Your task to perform on an android device: Go to location settings Image 0: 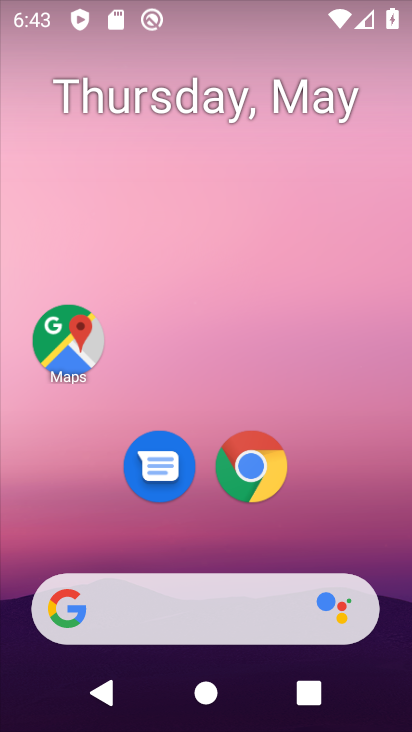
Step 0: drag from (334, 517) to (222, 33)
Your task to perform on an android device: Go to location settings Image 1: 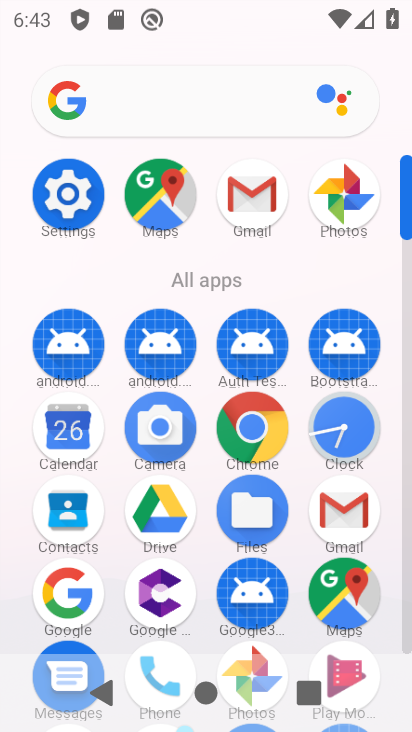
Step 1: click (69, 199)
Your task to perform on an android device: Go to location settings Image 2: 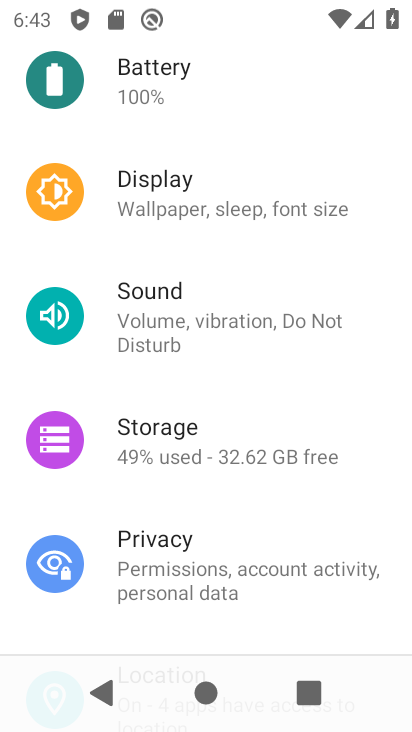
Step 2: drag from (263, 539) to (193, 199)
Your task to perform on an android device: Go to location settings Image 3: 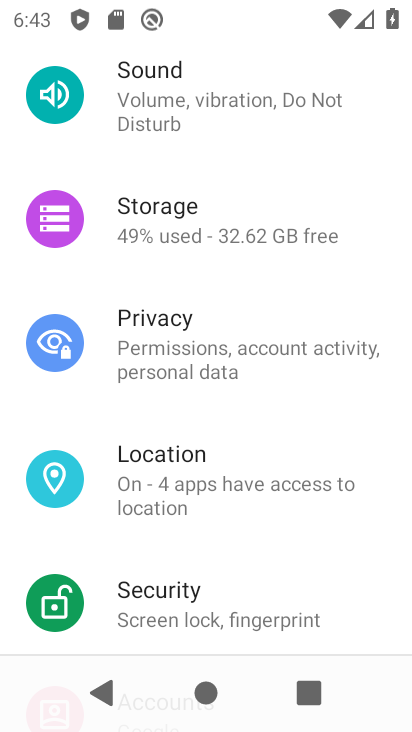
Step 3: click (151, 459)
Your task to perform on an android device: Go to location settings Image 4: 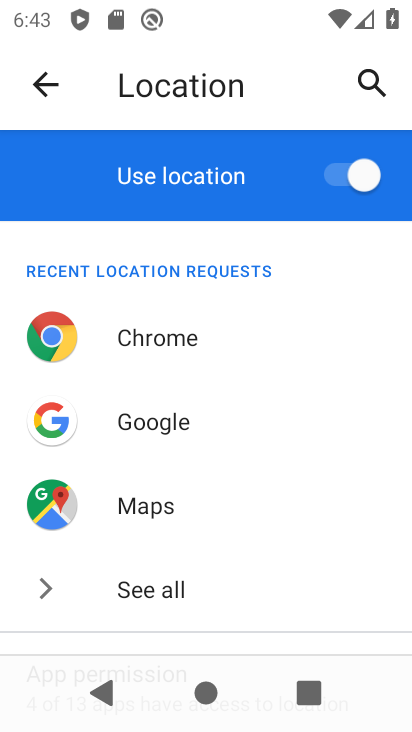
Step 4: task complete